Your task to perform on an android device: open a bookmark in the chrome app Image 0: 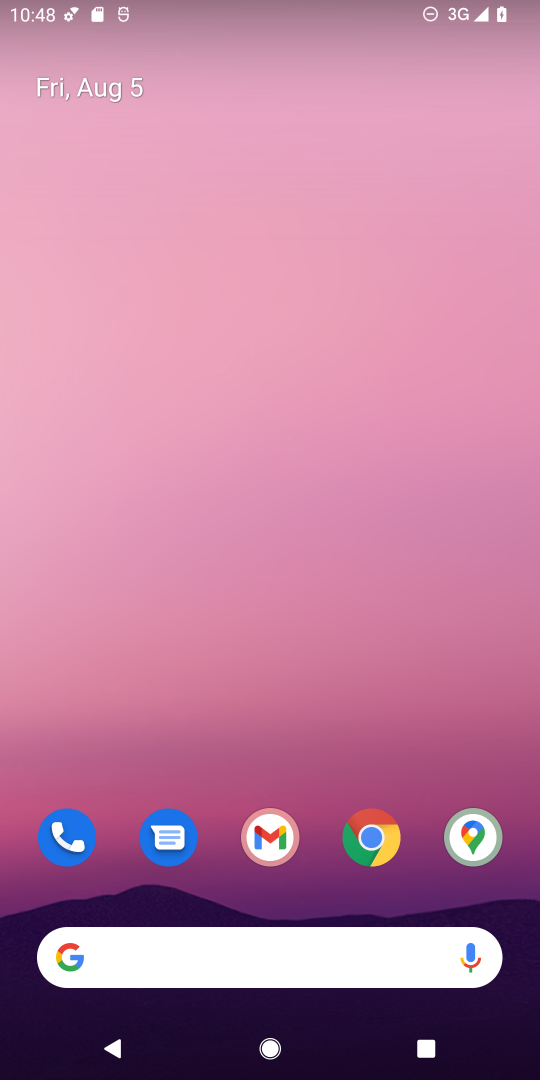
Step 0: drag from (326, 724) to (386, 4)
Your task to perform on an android device: open a bookmark in the chrome app Image 1: 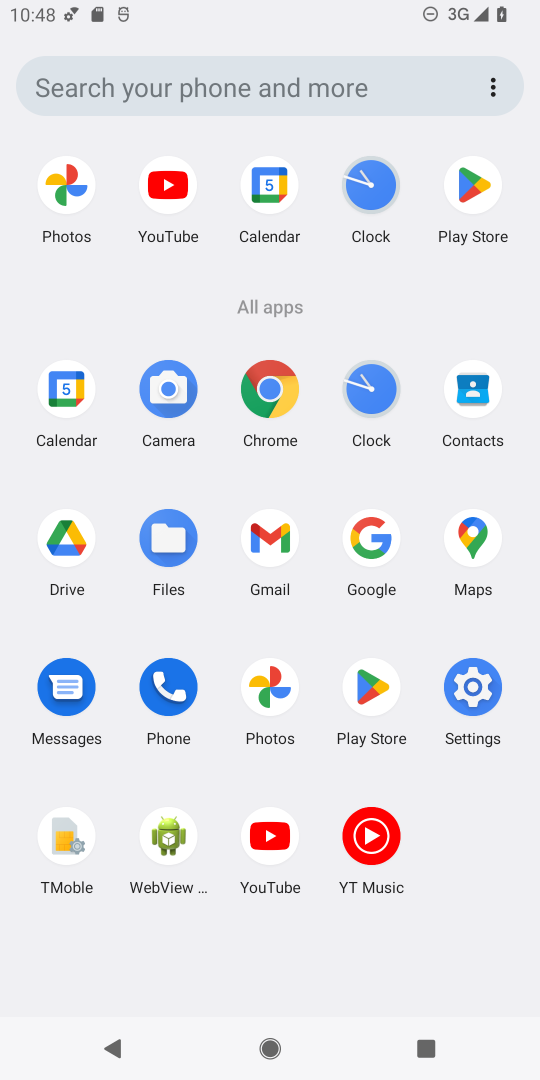
Step 1: click (273, 376)
Your task to perform on an android device: open a bookmark in the chrome app Image 2: 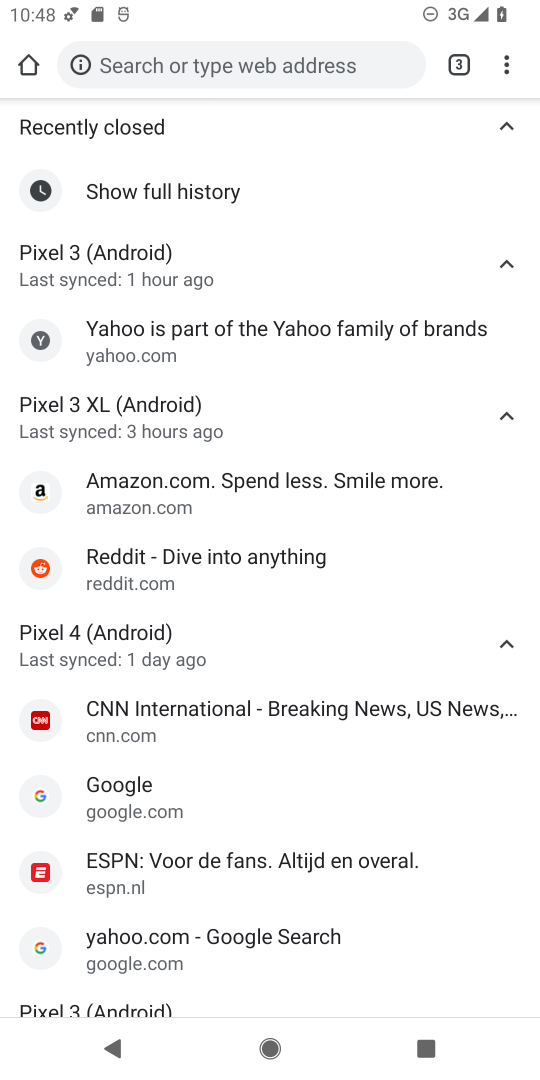
Step 2: click (513, 69)
Your task to perform on an android device: open a bookmark in the chrome app Image 3: 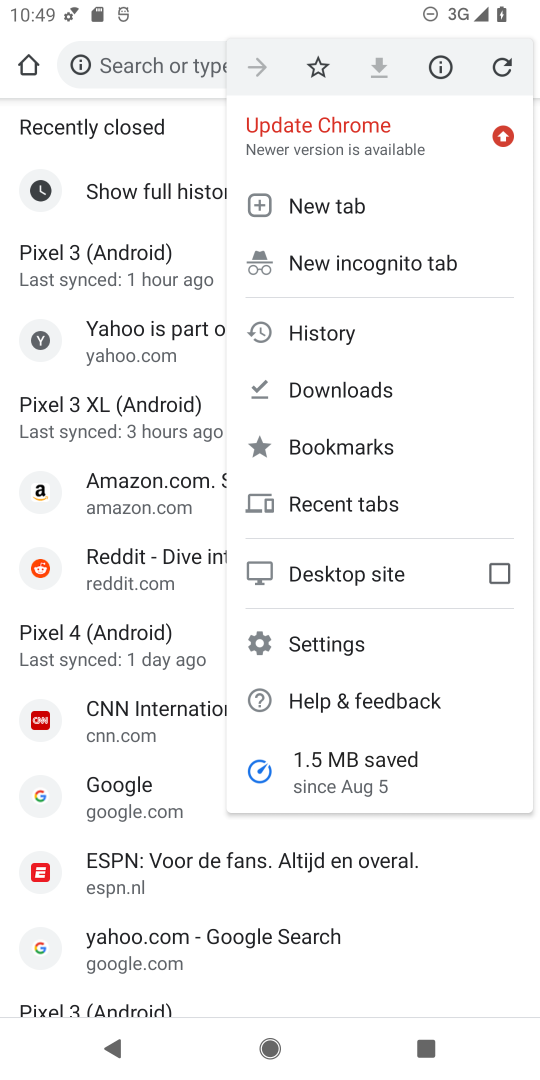
Step 3: click (360, 440)
Your task to perform on an android device: open a bookmark in the chrome app Image 4: 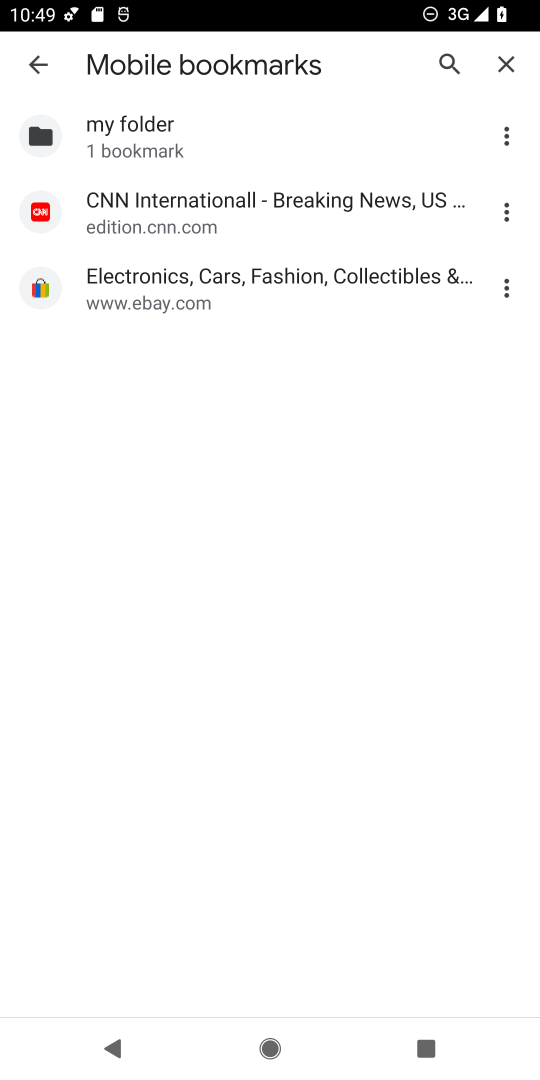
Step 4: click (314, 274)
Your task to perform on an android device: open a bookmark in the chrome app Image 5: 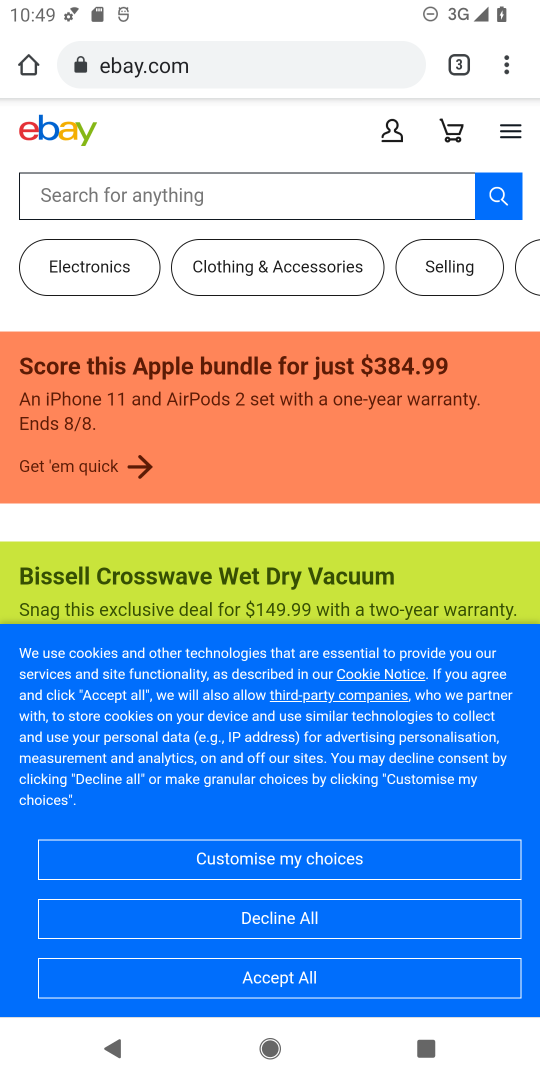
Step 5: task complete